Your task to perform on an android device: turn off javascript in the chrome app Image 0: 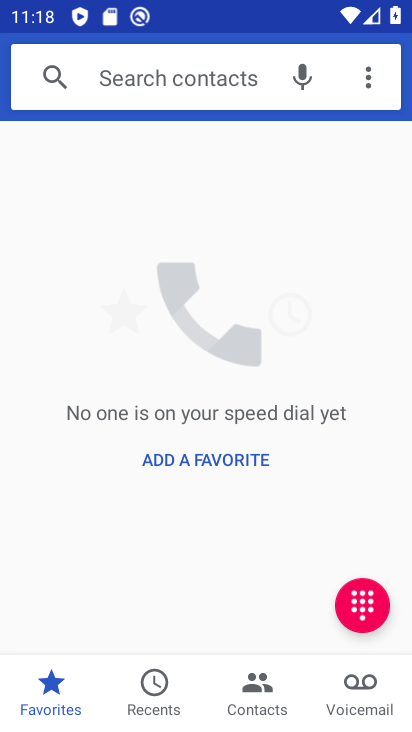
Step 0: press home button
Your task to perform on an android device: turn off javascript in the chrome app Image 1: 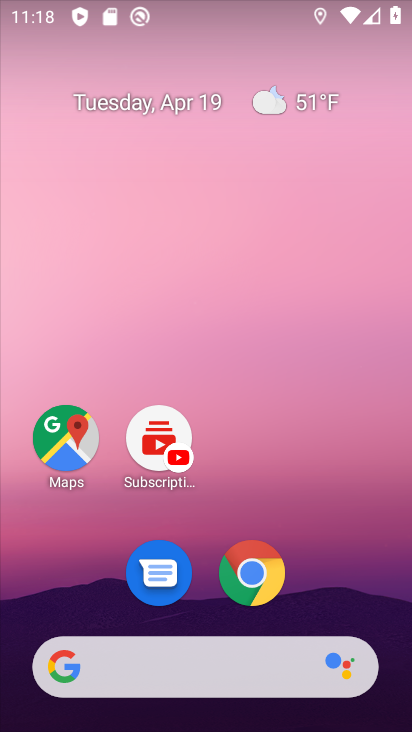
Step 1: click (271, 560)
Your task to perform on an android device: turn off javascript in the chrome app Image 2: 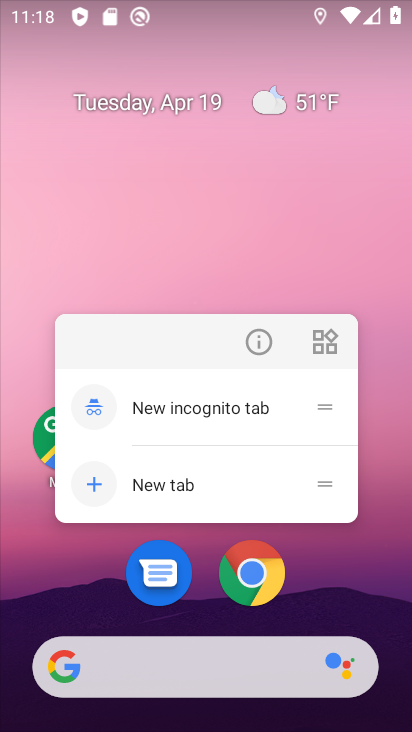
Step 2: click (273, 555)
Your task to perform on an android device: turn off javascript in the chrome app Image 3: 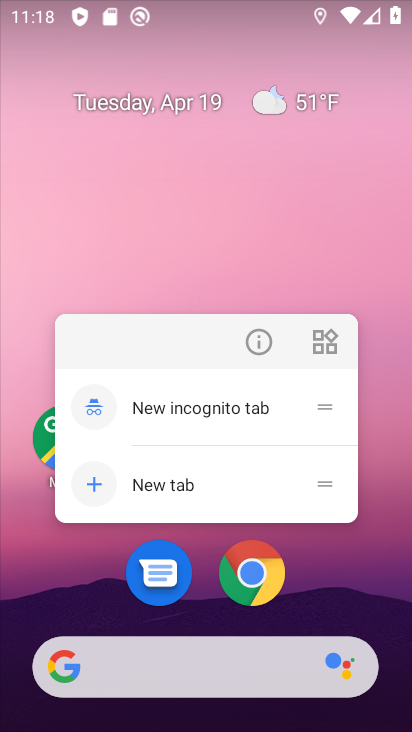
Step 3: click (262, 565)
Your task to perform on an android device: turn off javascript in the chrome app Image 4: 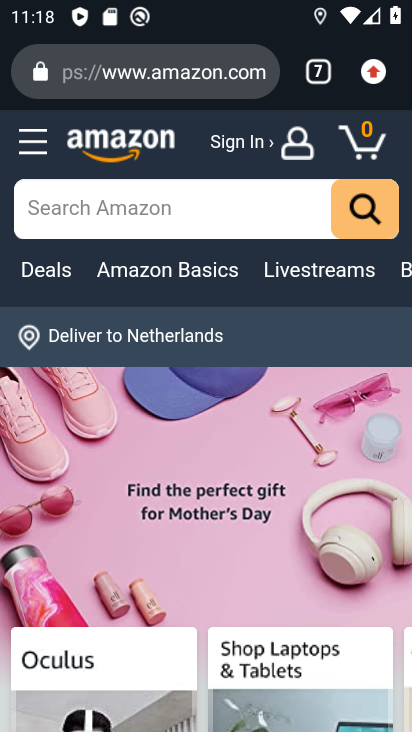
Step 4: drag from (374, 71) to (125, 564)
Your task to perform on an android device: turn off javascript in the chrome app Image 5: 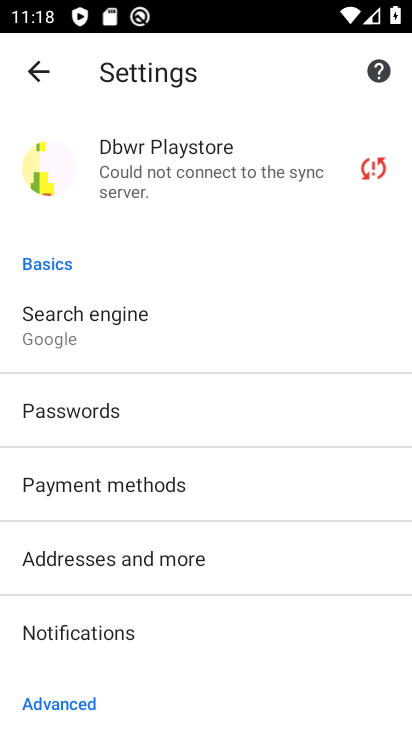
Step 5: drag from (145, 675) to (162, 293)
Your task to perform on an android device: turn off javascript in the chrome app Image 6: 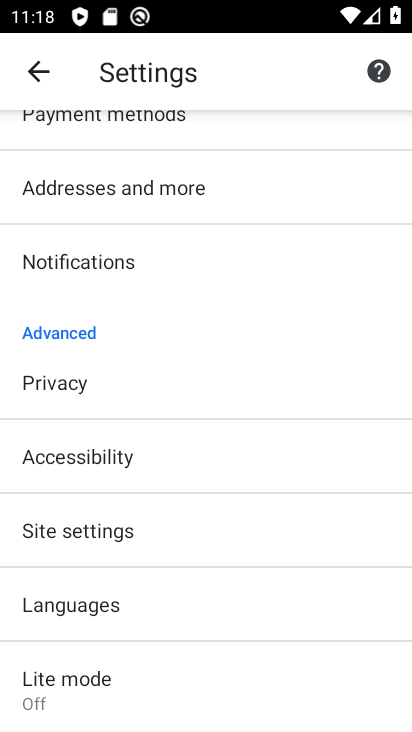
Step 6: click (85, 524)
Your task to perform on an android device: turn off javascript in the chrome app Image 7: 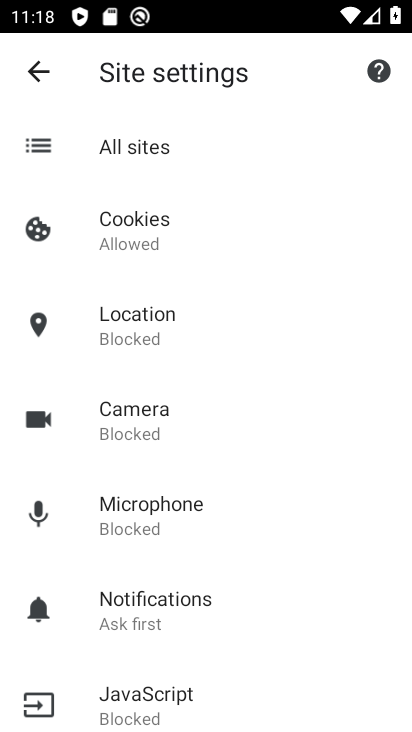
Step 7: click (152, 696)
Your task to perform on an android device: turn off javascript in the chrome app Image 8: 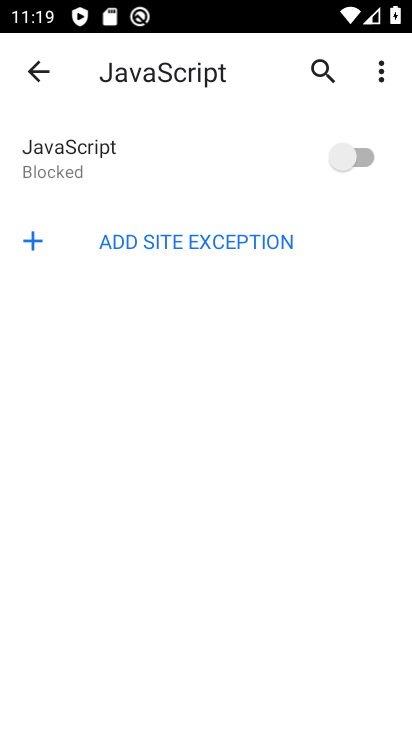
Step 8: task complete